Your task to perform on an android device: turn off sleep mode Image 0: 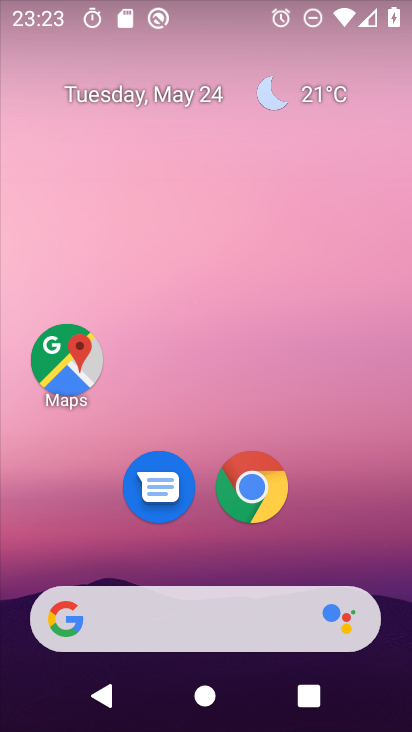
Step 0: drag from (371, 588) to (325, 6)
Your task to perform on an android device: turn off sleep mode Image 1: 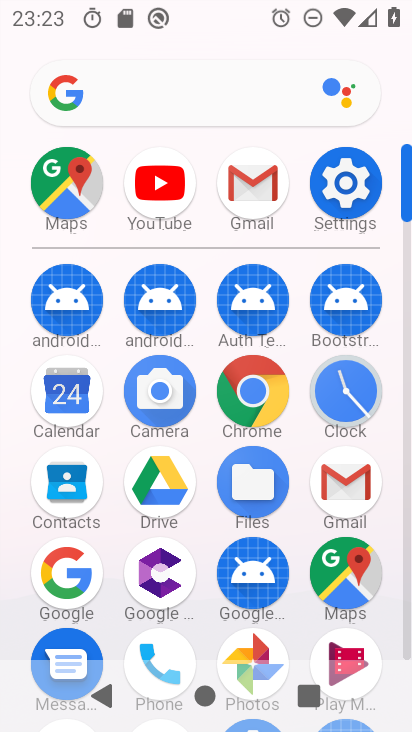
Step 1: click (336, 176)
Your task to perform on an android device: turn off sleep mode Image 2: 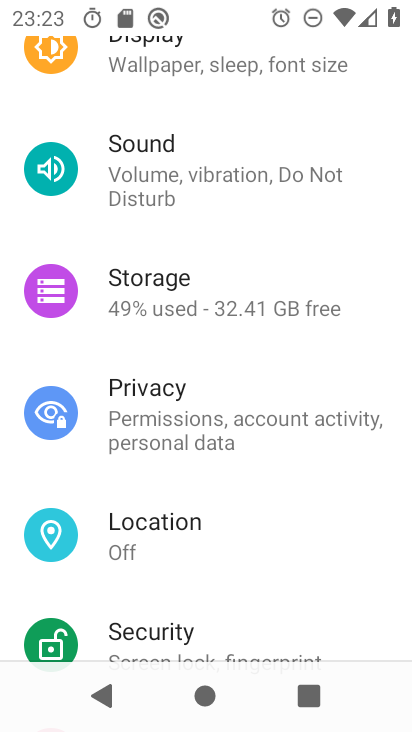
Step 2: drag from (256, 186) to (264, 482)
Your task to perform on an android device: turn off sleep mode Image 3: 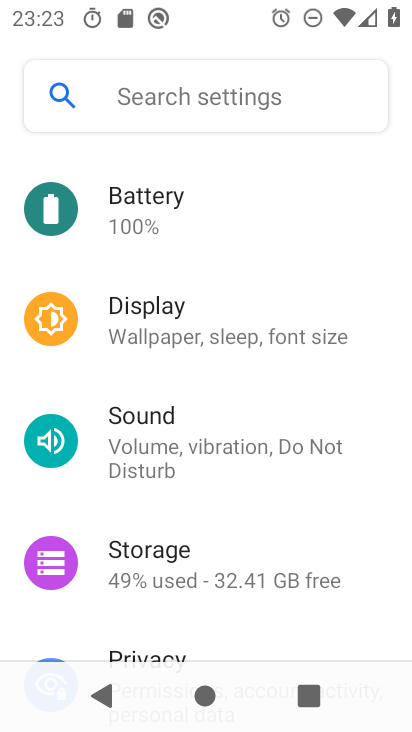
Step 3: click (140, 325)
Your task to perform on an android device: turn off sleep mode Image 4: 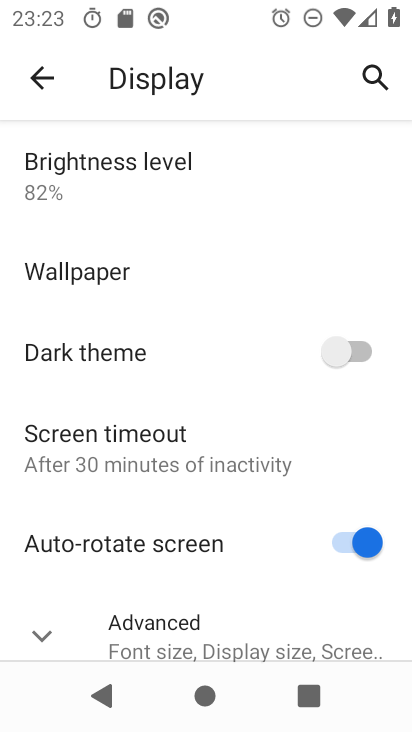
Step 4: click (39, 643)
Your task to perform on an android device: turn off sleep mode Image 5: 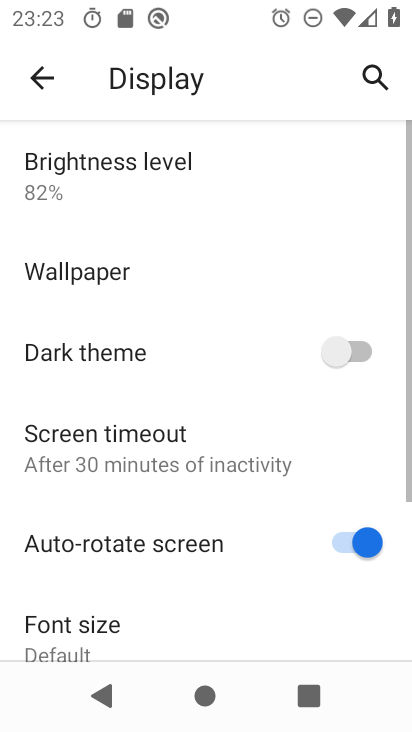
Step 5: task complete